Your task to perform on an android device: check data usage Image 0: 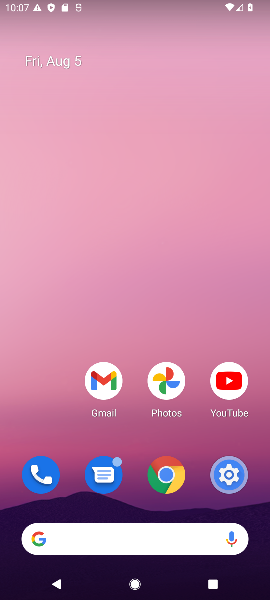
Step 0: drag from (132, 445) to (153, 3)
Your task to perform on an android device: check data usage Image 1: 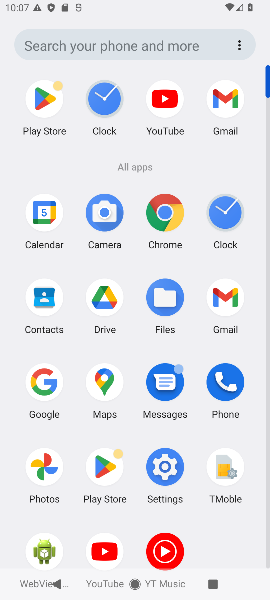
Step 1: click (163, 478)
Your task to perform on an android device: check data usage Image 2: 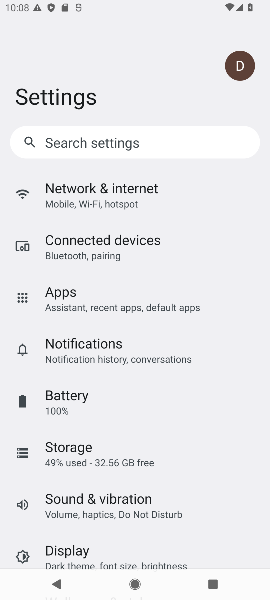
Step 2: click (113, 203)
Your task to perform on an android device: check data usage Image 3: 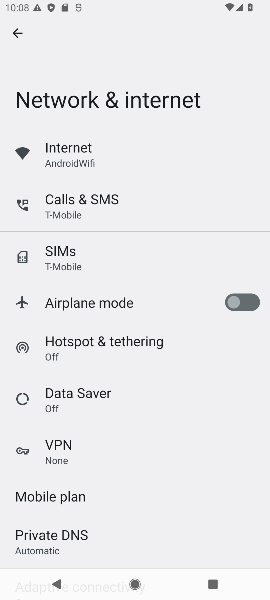
Step 3: click (68, 160)
Your task to perform on an android device: check data usage Image 4: 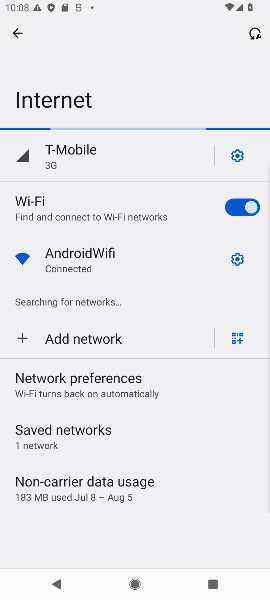
Step 4: click (240, 149)
Your task to perform on an android device: check data usage Image 5: 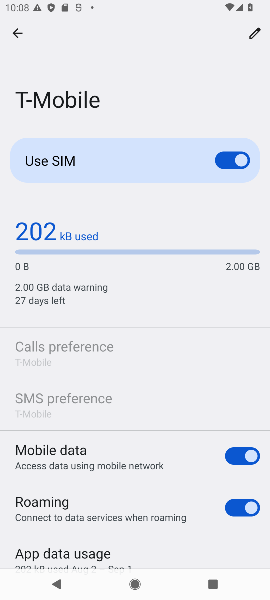
Step 5: drag from (116, 458) to (120, 257)
Your task to perform on an android device: check data usage Image 6: 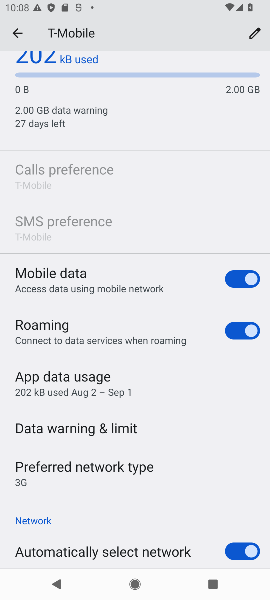
Step 6: click (93, 390)
Your task to perform on an android device: check data usage Image 7: 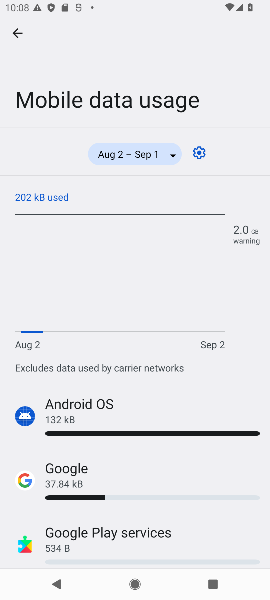
Step 7: task complete